Your task to perform on an android device: search for starred emails in the gmail app Image 0: 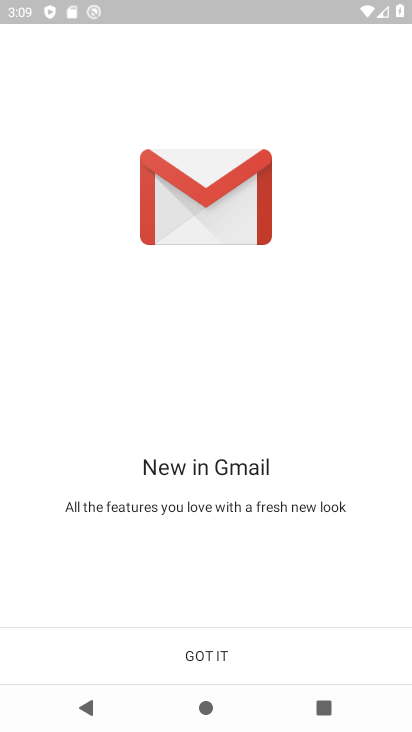
Step 0: click (242, 642)
Your task to perform on an android device: search for starred emails in the gmail app Image 1: 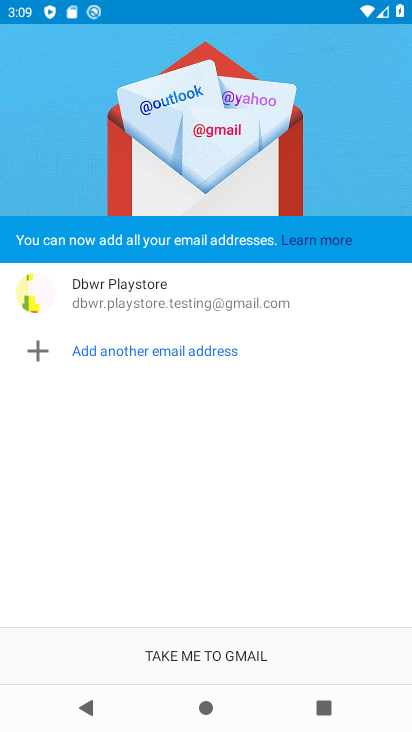
Step 1: click (231, 664)
Your task to perform on an android device: search for starred emails in the gmail app Image 2: 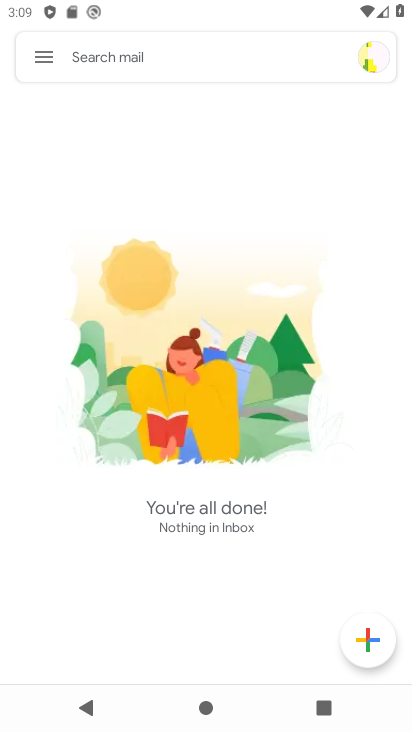
Step 2: click (50, 48)
Your task to perform on an android device: search for starred emails in the gmail app Image 3: 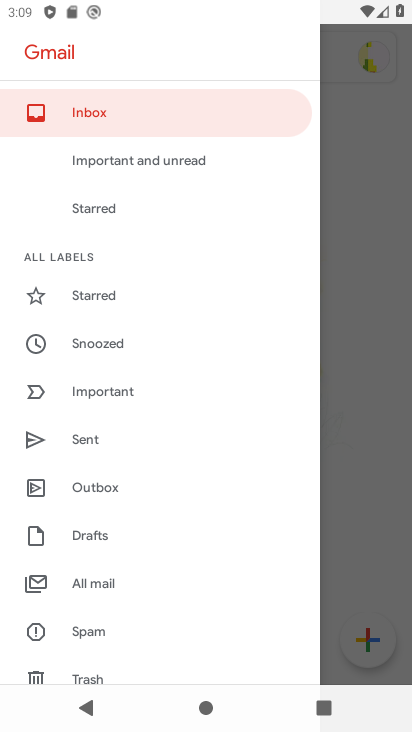
Step 3: click (89, 295)
Your task to perform on an android device: search for starred emails in the gmail app Image 4: 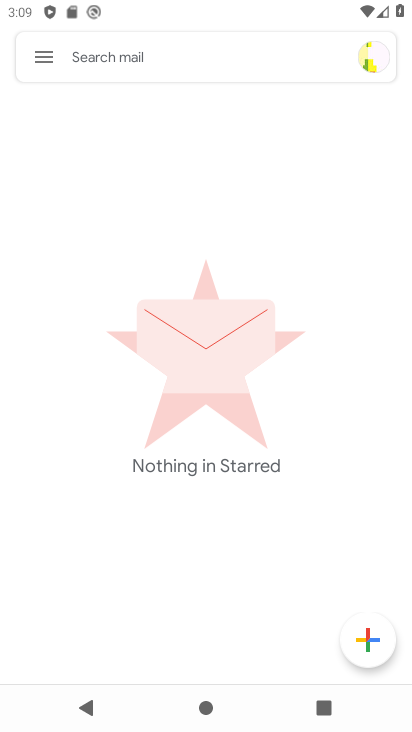
Step 4: task complete